Your task to perform on an android device: Search for pizza restaurants on Maps Image 0: 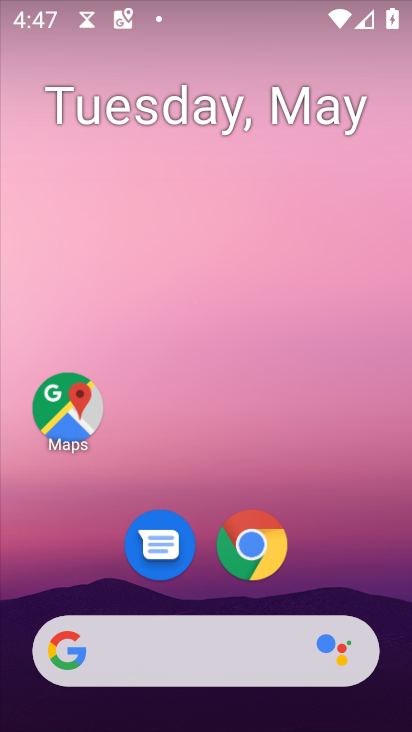
Step 0: click (66, 415)
Your task to perform on an android device: Search for pizza restaurants on Maps Image 1: 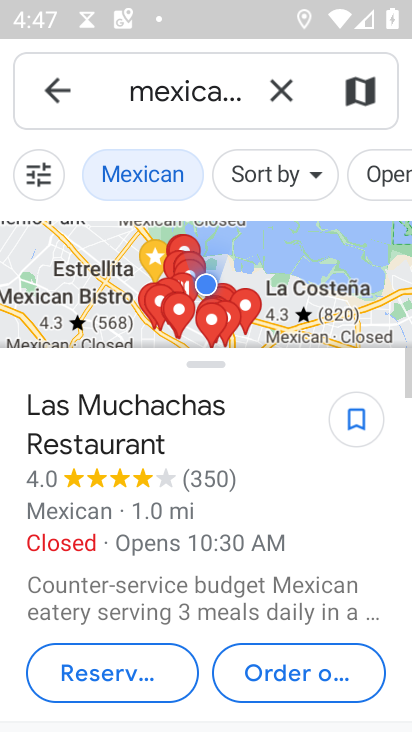
Step 1: click (283, 93)
Your task to perform on an android device: Search for pizza restaurants on Maps Image 2: 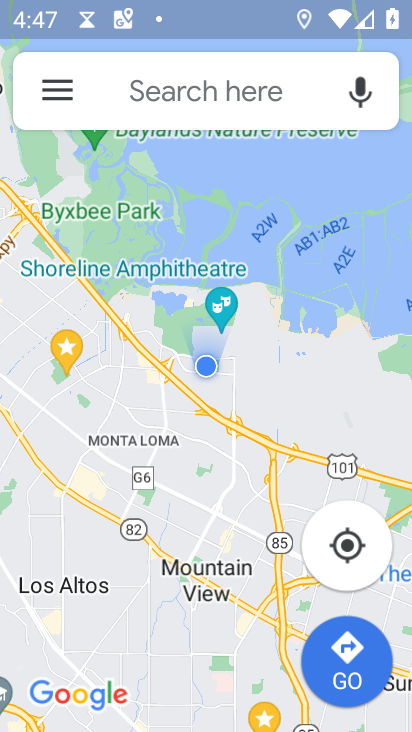
Step 2: click (248, 96)
Your task to perform on an android device: Search for pizza restaurants on Maps Image 3: 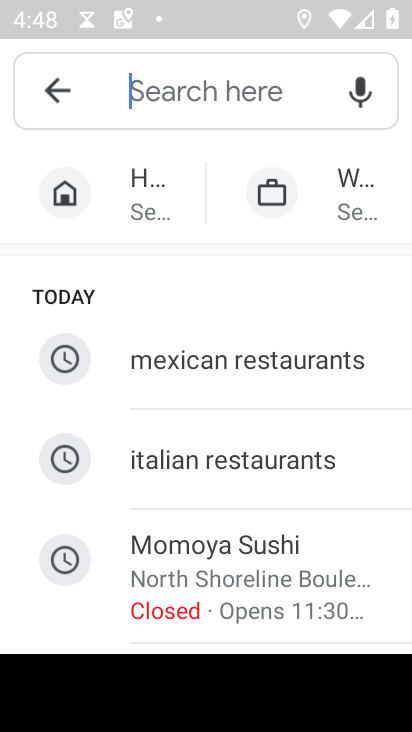
Step 3: type "pizza restaurants"
Your task to perform on an android device: Search for pizza restaurants on Maps Image 4: 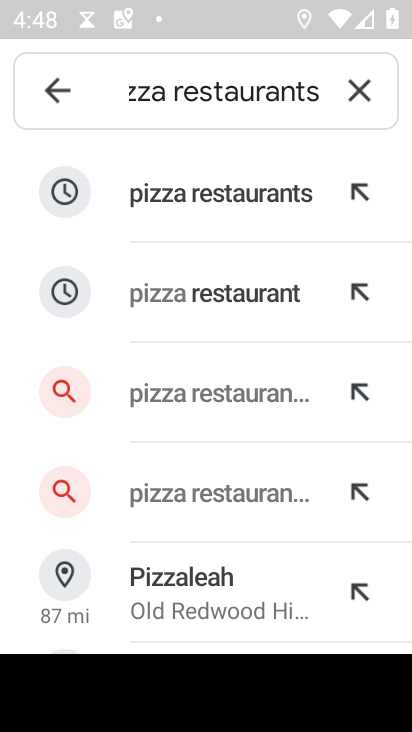
Step 4: click (221, 193)
Your task to perform on an android device: Search for pizza restaurants on Maps Image 5: 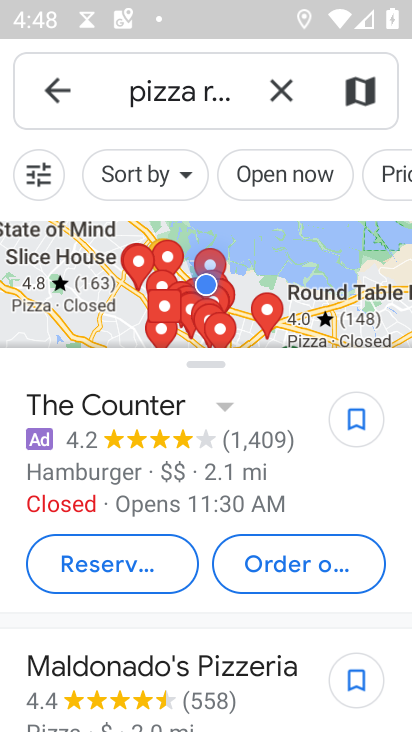
Step 5: task complete